Your task to perform on an android device: Go to ESPN.com Image 0: 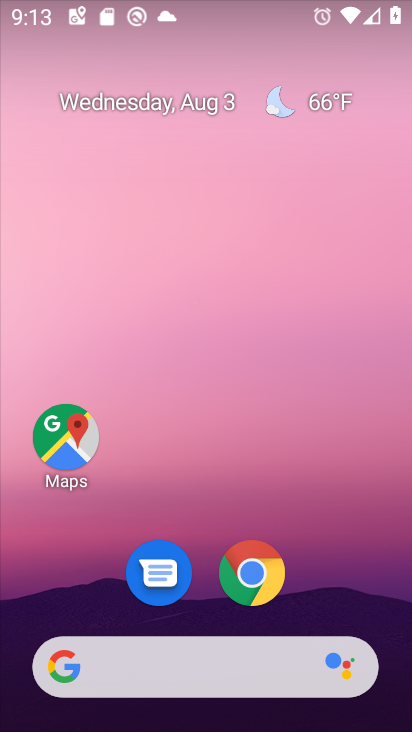
Step 0: click (254, 580)
Your task to perform on an android device: Go to ESPN.com Image 1: 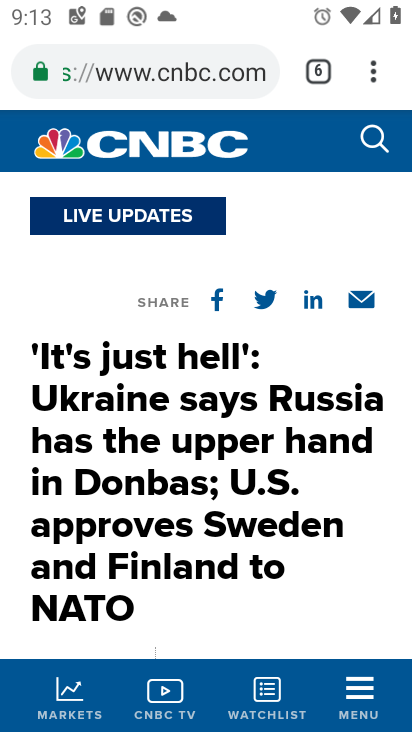
Step 1: click (144, 73)
Your task to perform on an android device: Go to ESPN.com Image 2: 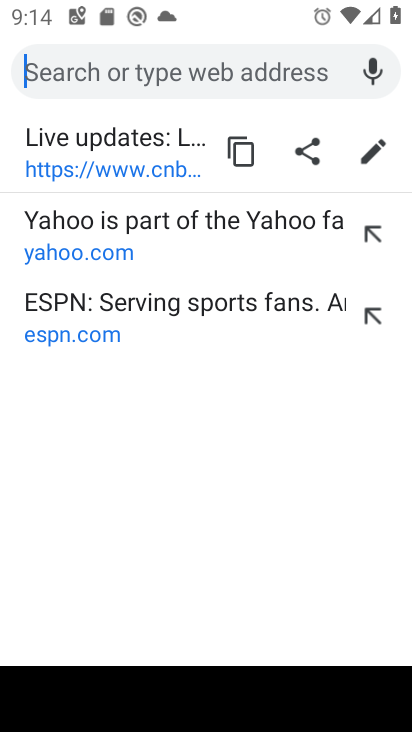
Step 2: type "espn.com"
Your task to perform on an android device: Go to ESPN.com Image 3: 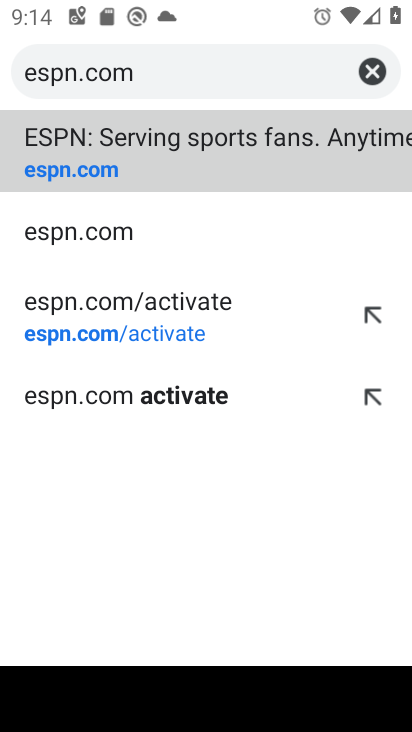
Step 3: click (98, 178)
Your task to perform on an android device: Go to ESPN.com Image 4: 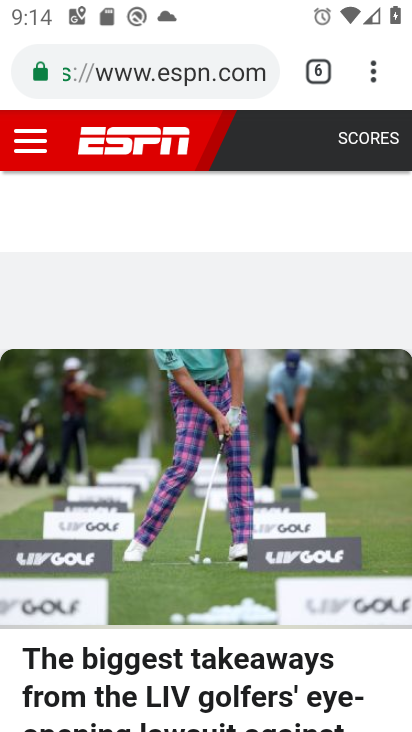
Step 4: task complete